Your task to perform on an android device: toggle wifi Image 0: 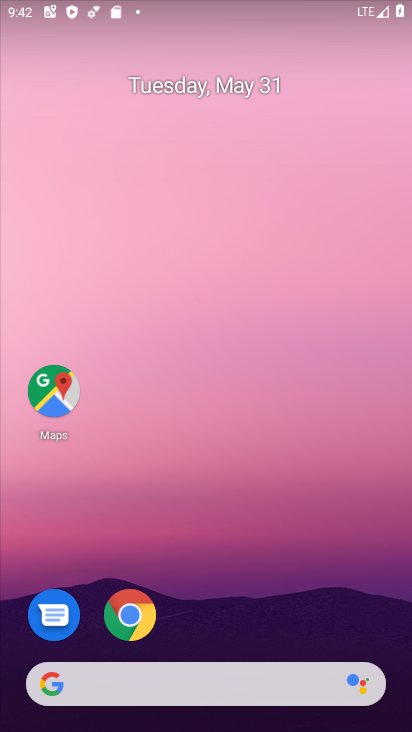
Step 0: drag from (366, 390) to (337, 106)
Your task to perform on an android device: toggle wifi Image 1: 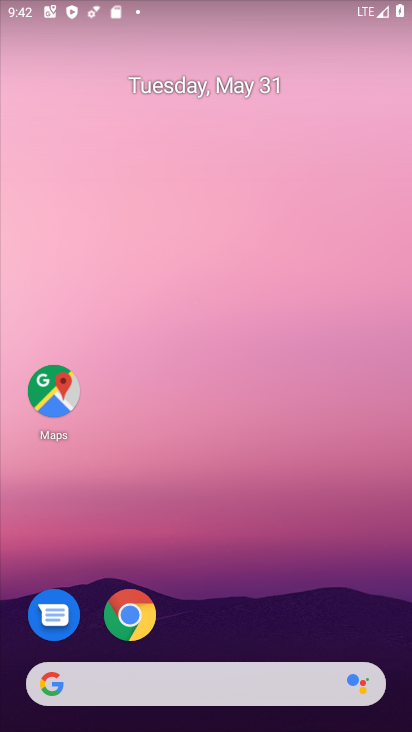
Step 1: drag from (389, 442) to (354, 230)
Your task to perform on an android device: toggle wifi Image 2: 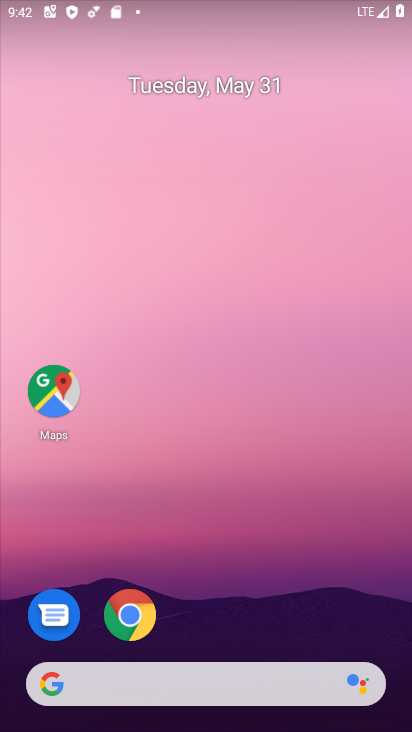
Step 2: drag from (343, 579) to (279, 2)
Your task to perform on an android device: toggle wifi Image 3: 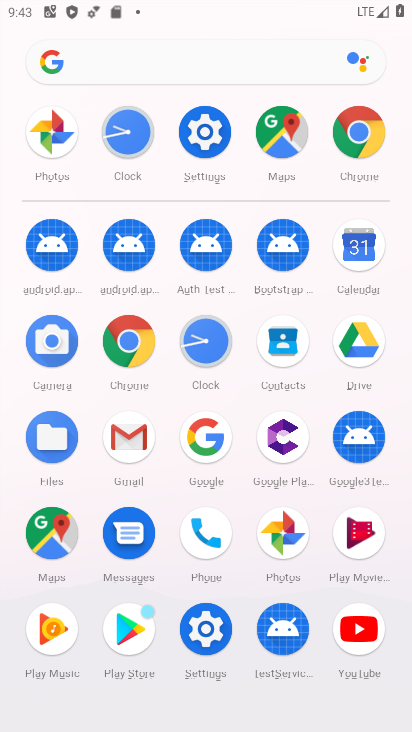
Step 3: click (205, 135)
Your task to perform on an android device: toggle wifi Image 4: 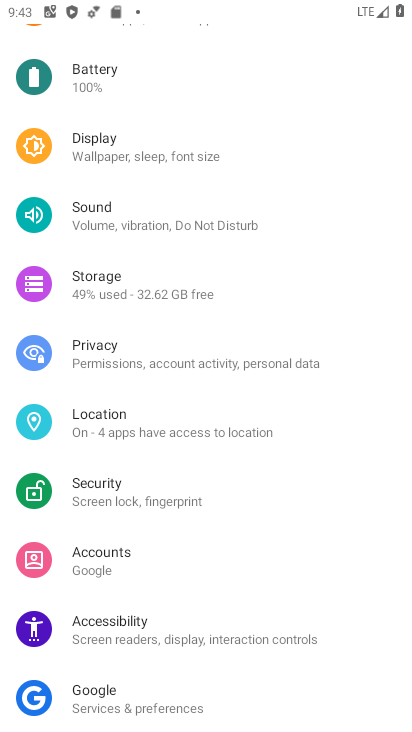
Step 4: drag from (205, 135) to (246, 728)
Your task to perform on an android device: toggle wifi Image 5: 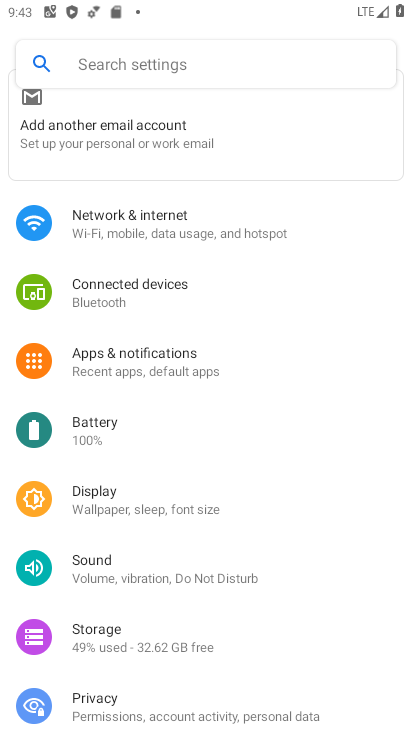
Step 5: drag from (283, 325) to (306, 548)
Your task to perform on an android device: toggle wifi Image 6: 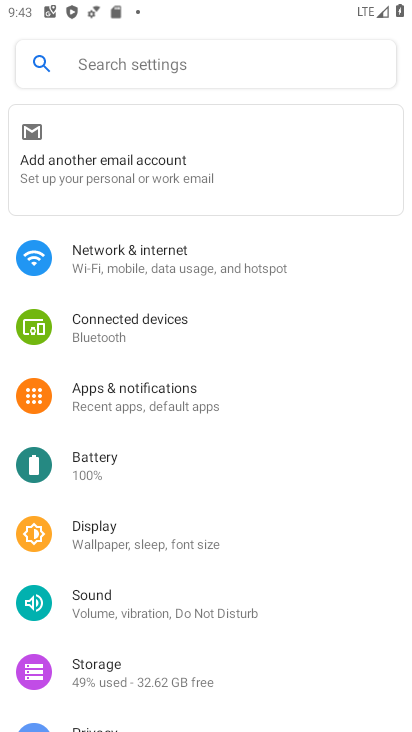
Step 6: click (148, 258)
Your task to perform on an android device: toggle wifi Image 7: 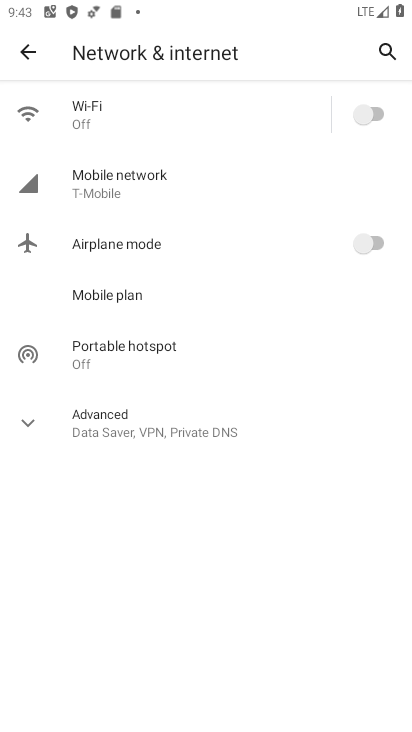
Step 7: click (362, 125)
Your task to perform on an android device: toggle wifi Image 8: 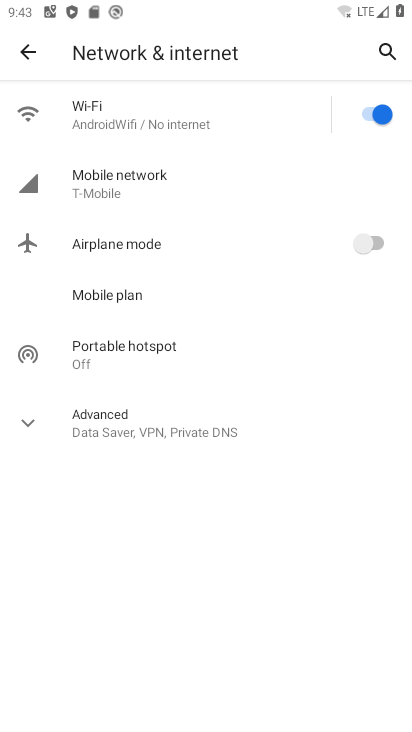
Step 8: task complete